Your task to perform on an android device: change keyboard looks Image 0: 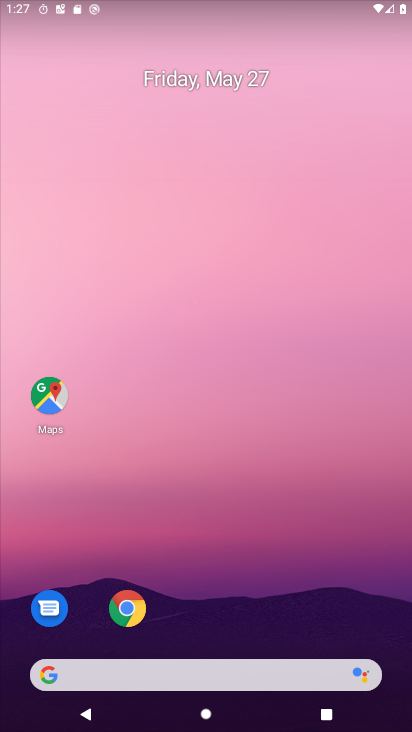
Step 0: drag from (390, 712) to (327, 10)
Your task to perform on an android device: change keyboard looks Image 1: 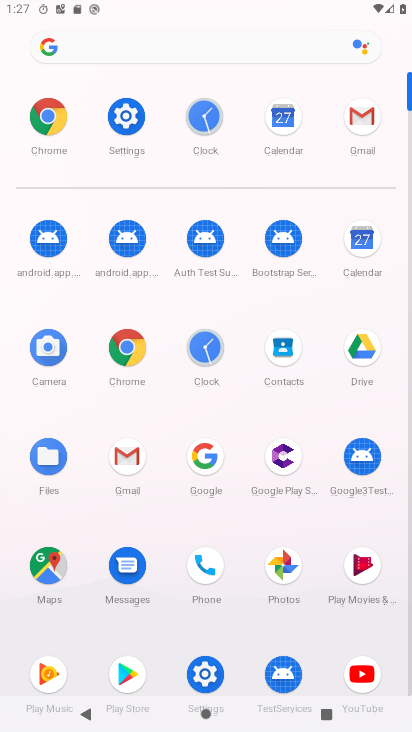
Step 1: click (117, 208)
Your task to perform on an android device: change keyboard looks Image 2: 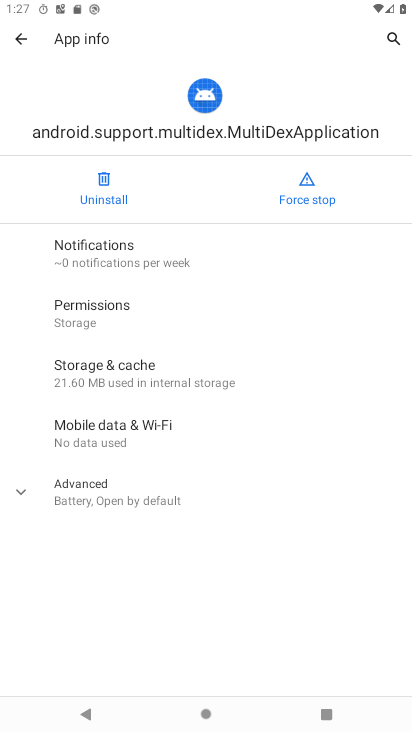
Step 2: click (20, 42)
Your task to perform on an android device: change keyboard looks Image 3: 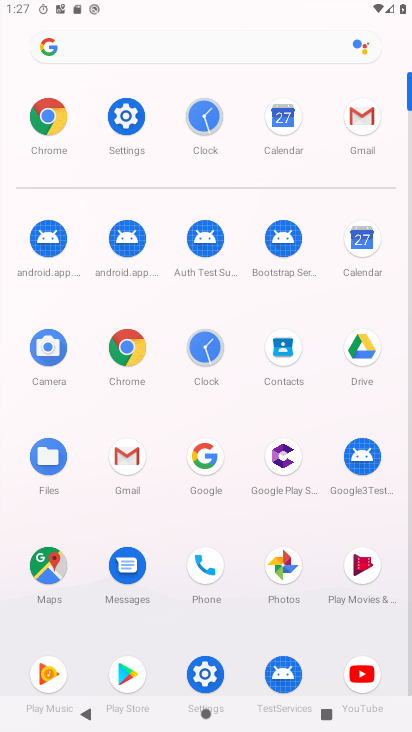
Step 3: click (211, 676)
Your task to perform on an android device: change keyboard looks Image 4: 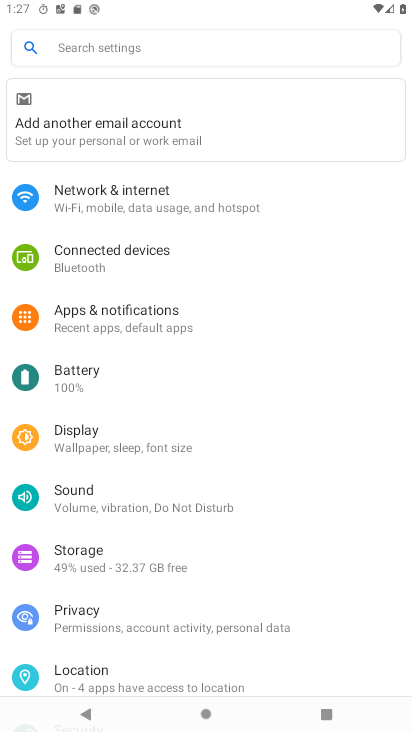
Step 4: drag from (309, 664) to (290, 111)
Your task to perform on an android device: change keyboard looks Image 5: 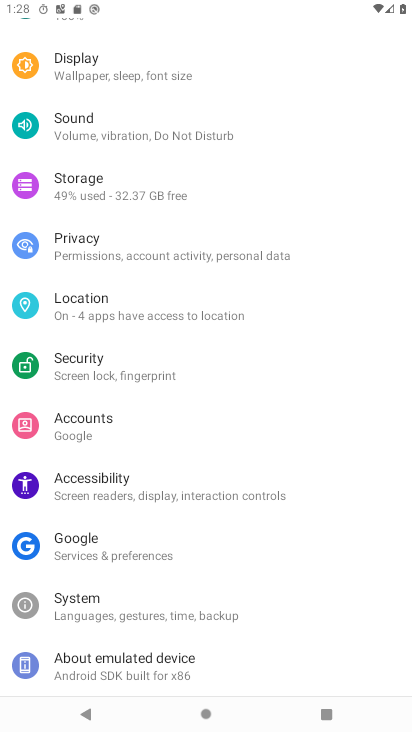
Step 5: click (75, 600)
Your task to perform on an android device: change keyboard looks Image 6: 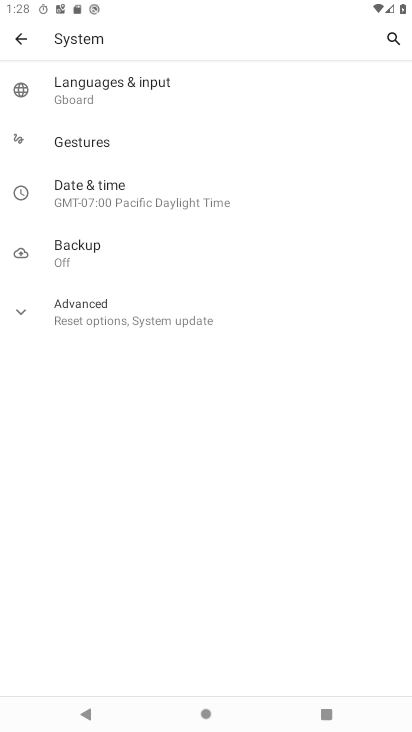
Step 6: click (82, 84)
Your task to perform on an android device: change keyboard looks Image 7: 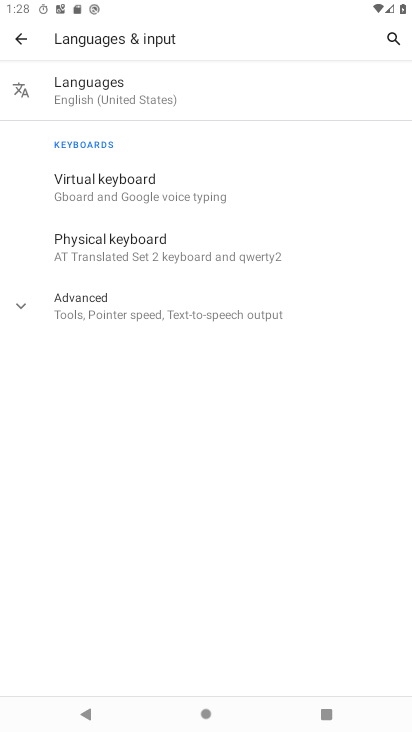
Step 7: click (114, 181)
Your task to perform on an android device: change keyboard looks Image 8: 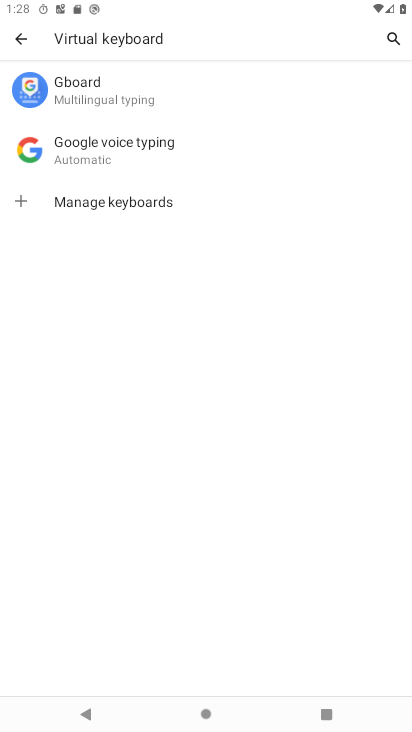
Step 8: click (79, 87)
Your task to perform on an android device: change keyboard looks Image 9: 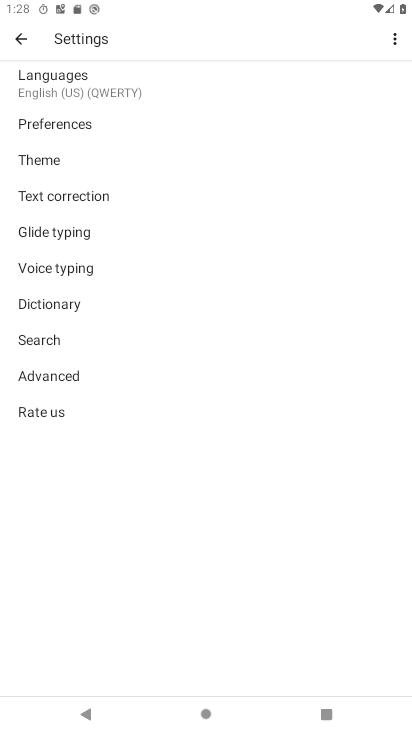
Step 9: drag from (161, 146) to (187, 425)
Your task to perform on an android device: change keyboard looks Image 10: 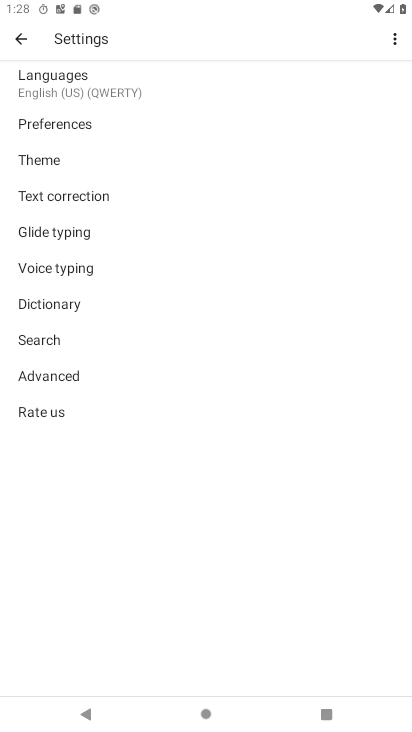
Step 10: click (39, 154)
Your task to perform on an android device: change keyboard looks Image 11: 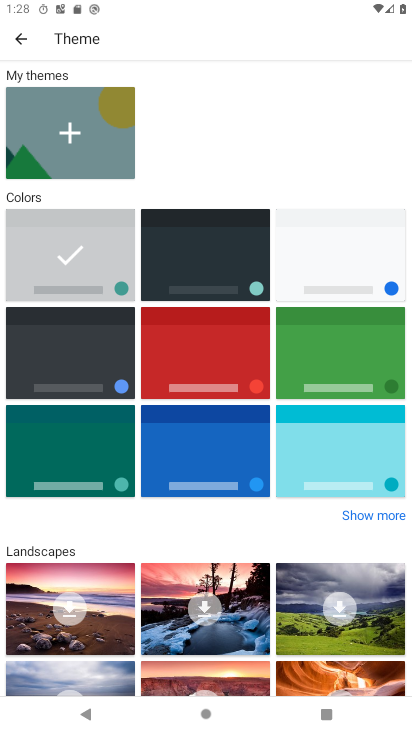
Step 11: click (80, 461)
Your task to perform on an android device: change keyboard looks Image 12: 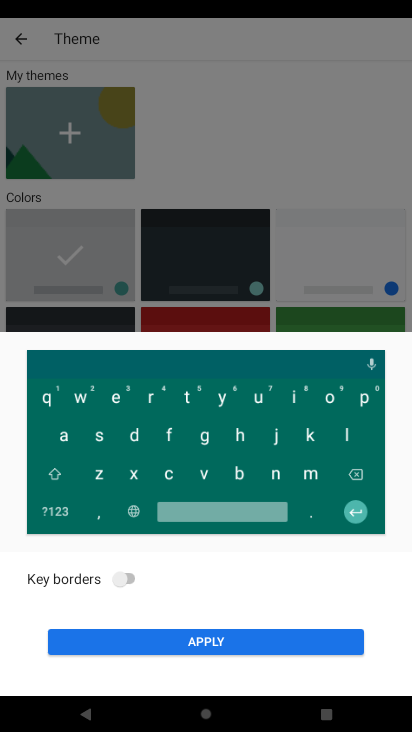
Step 12: click (136, 582)
Your task to perform on an android device: change keyboard looks Image 13: 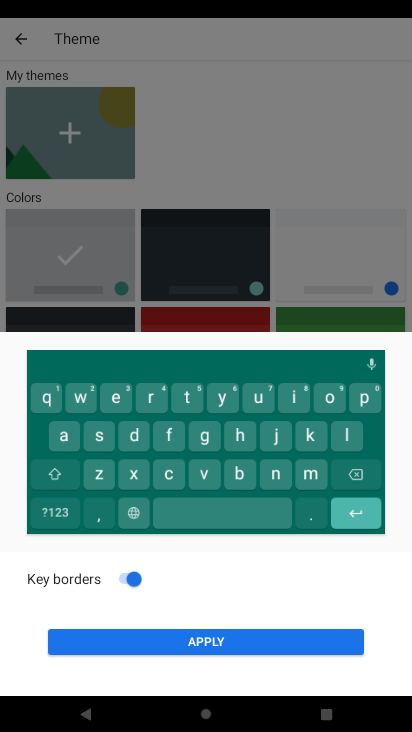
Step 13: click (197, 645)
Your task to perform on an android device: change keyboard looks Image 14: 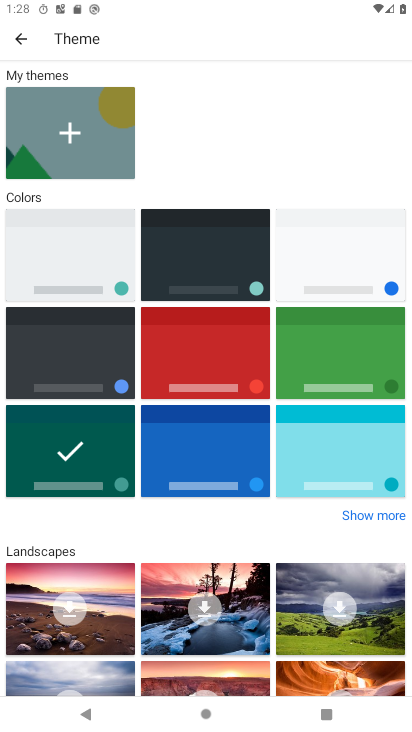
Step 14: task complete